Your task to perform on an android device: install app "NewsBreak: Local News & Alerts" Image 0: 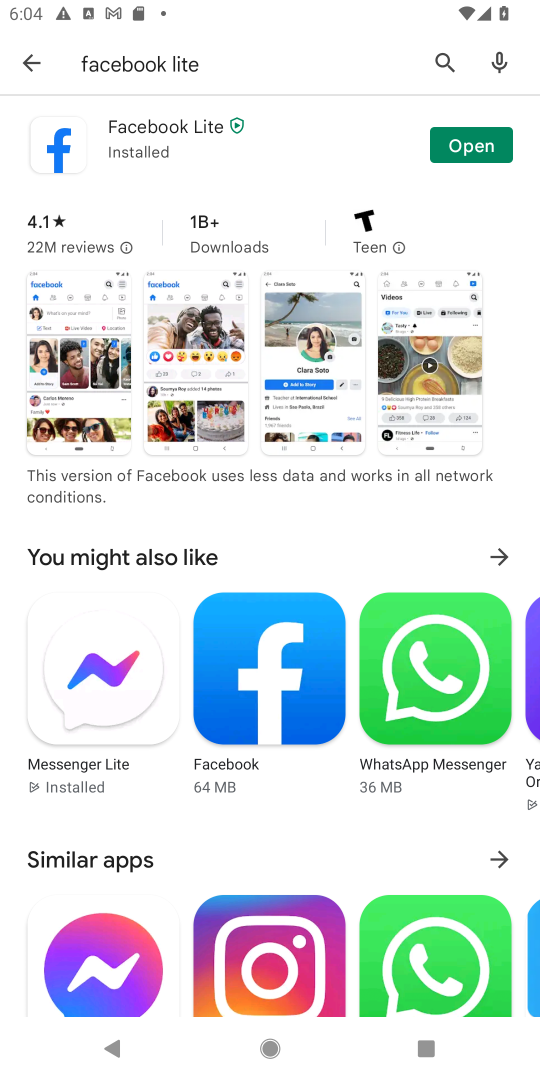
Step 0: press home button
Your task to perform on an android device: install app "NewsBreak: Local News & Alerts" Image 1: 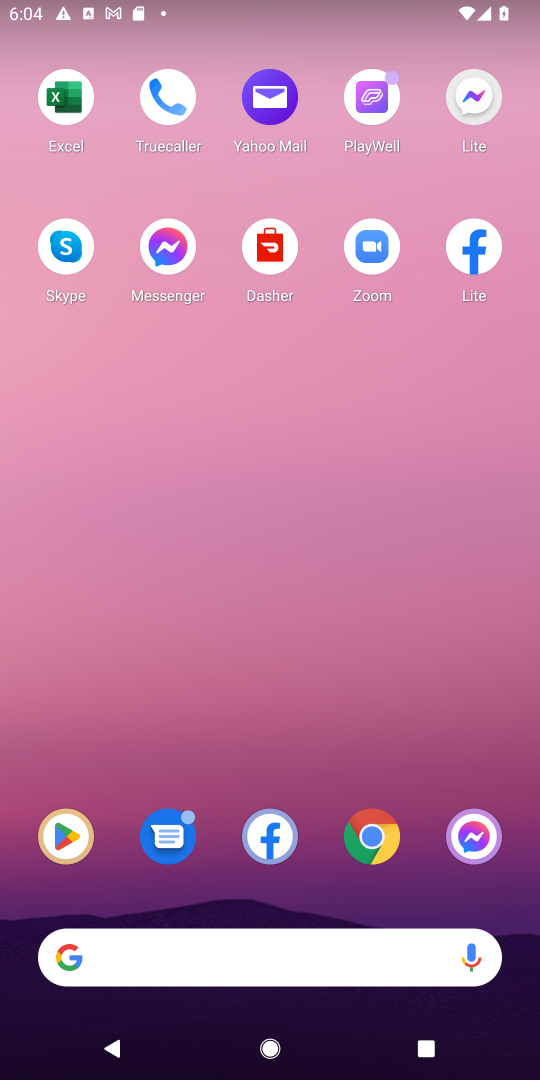
Step 1: click (50, 845)
Your task to perform on an android device: install app "NewsBreak: Local News & Alerts" Image 2: 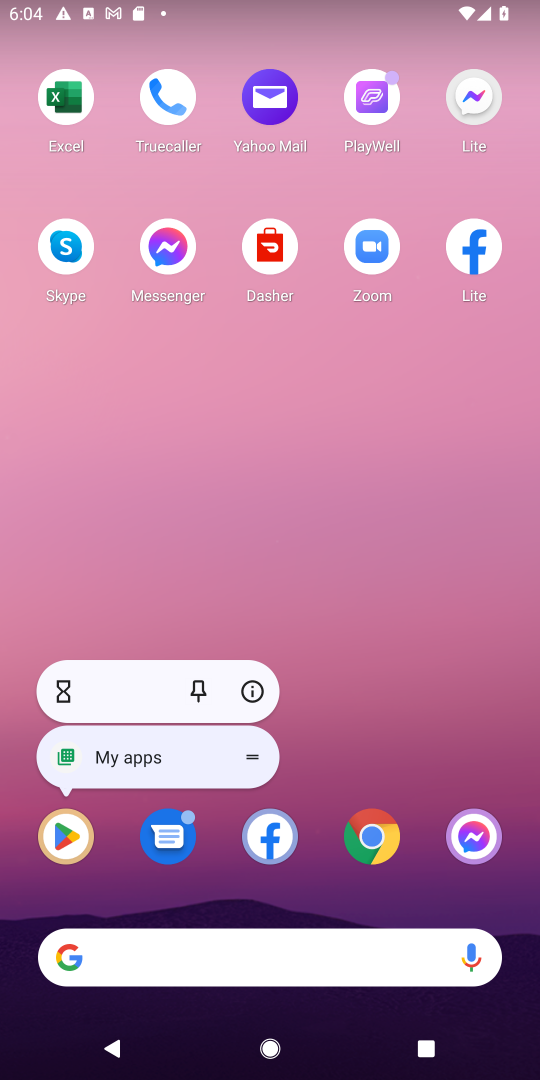
Step 2: click (56, 842)
Your task to perform on an android device: install app "NewsBreak: Local News & Alerts" Image 3: 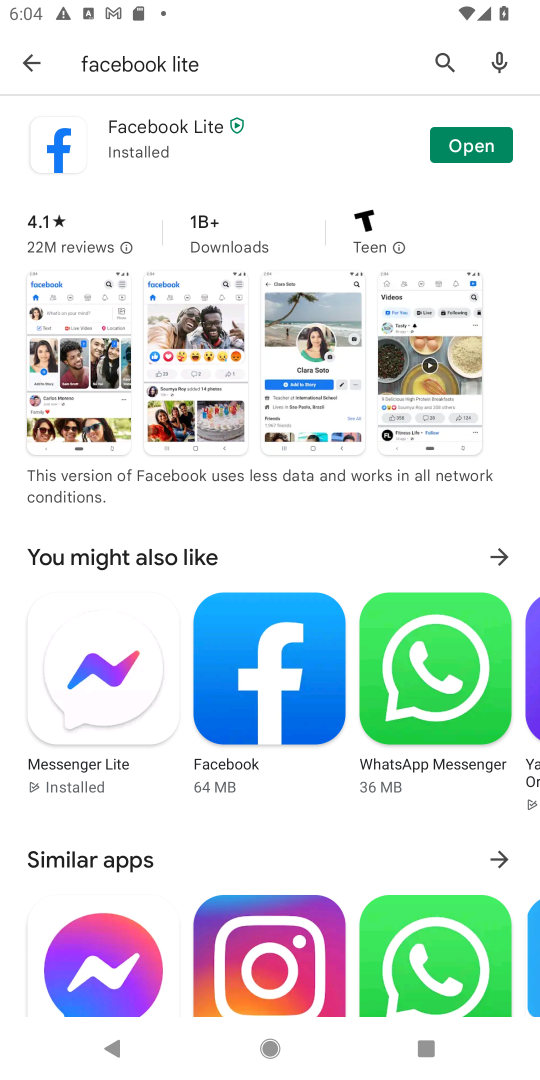
Step 3: click (442, 59)
Your task to perform on an android device: install app "NewsBreak: Local News & Alerts" Image 4: 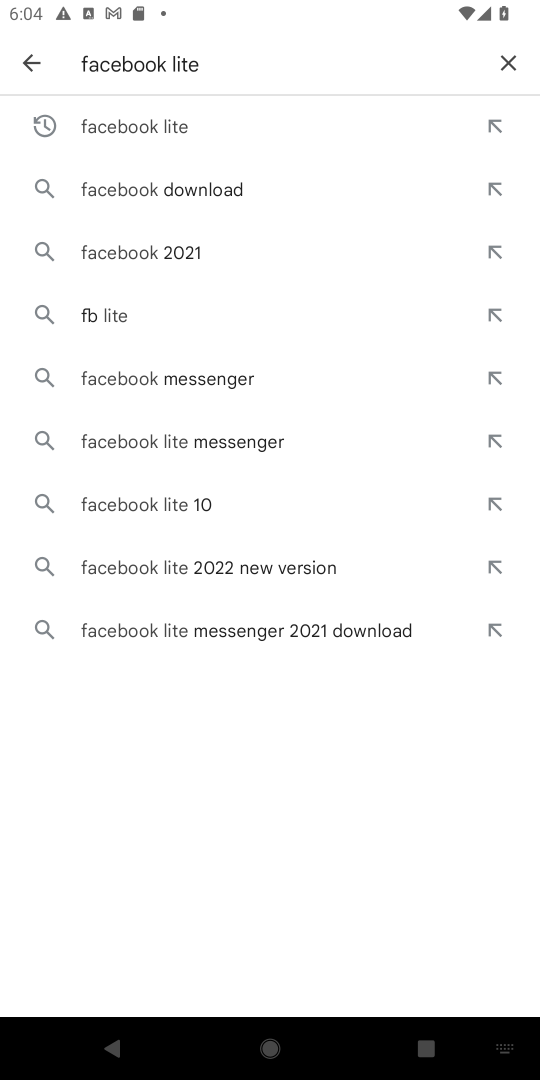
Step 4: click (504, 57)
Your task to perform on an android device: install app "NewsBreak: Local News & Alerts" Image 5: 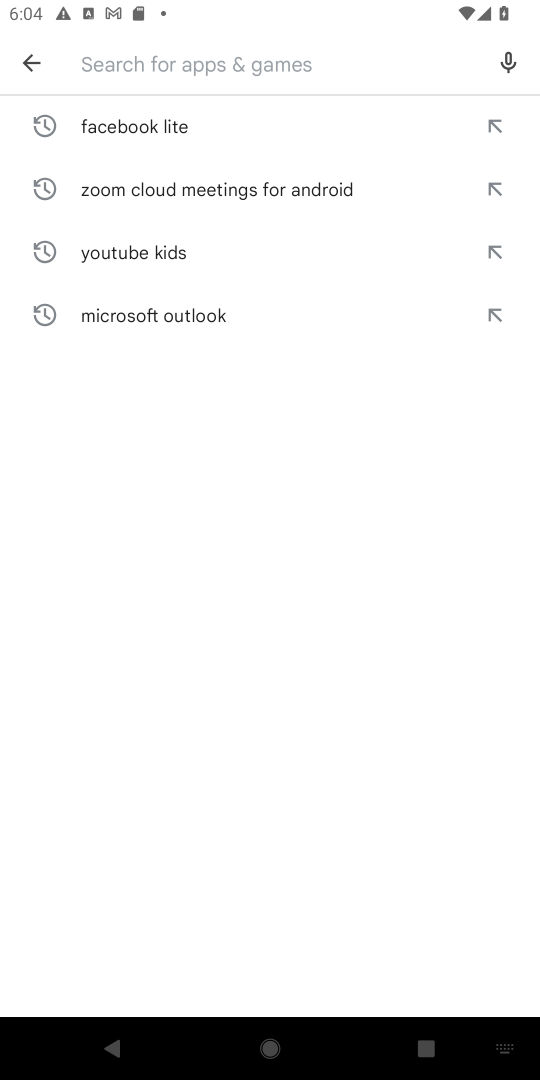
Step 5: click (525, 1074)
Your task to perform on an android device: install app "NewsBreak: Local News & Alerts" Image 6: 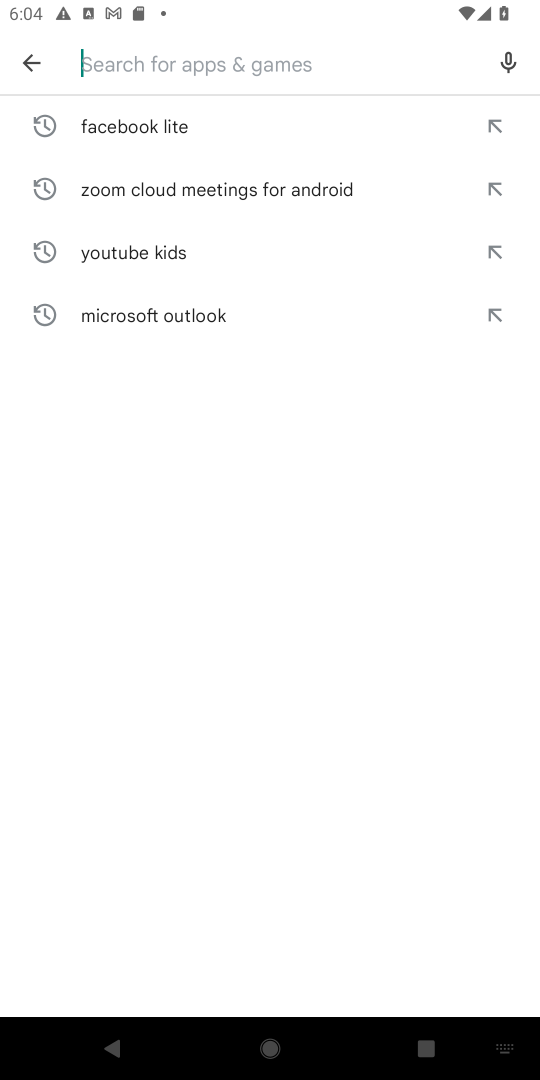
Step 6: type "NewsBreak: Local News & Alerts"
Your task to perform on an android device: install app "NewsBreak: Local News & Alerts" Image 7: 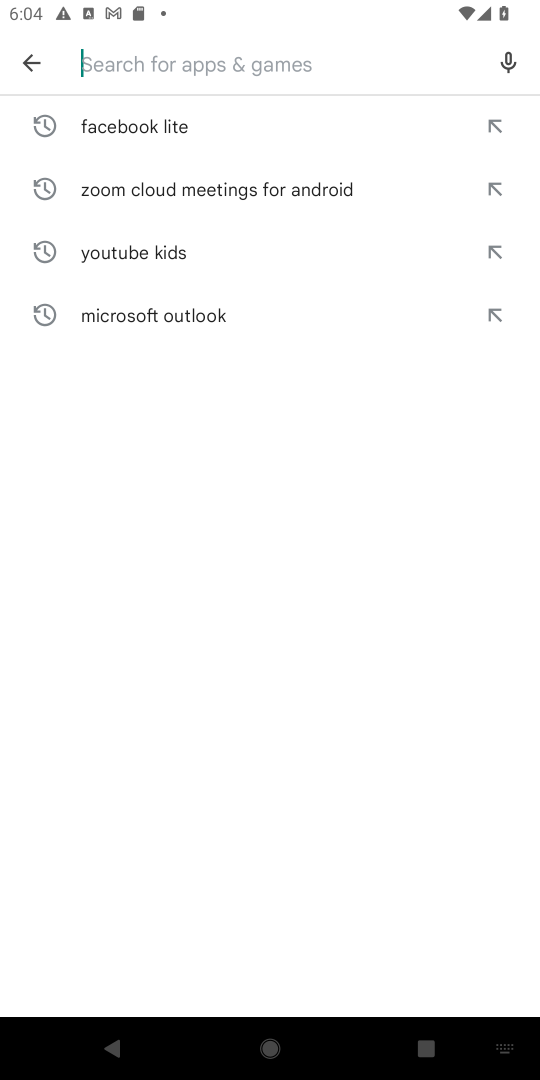
Step 7: click (528, 255)
Your task to perform on an android device: install app "NewsBreak: Local News & Alerts" Image 8: 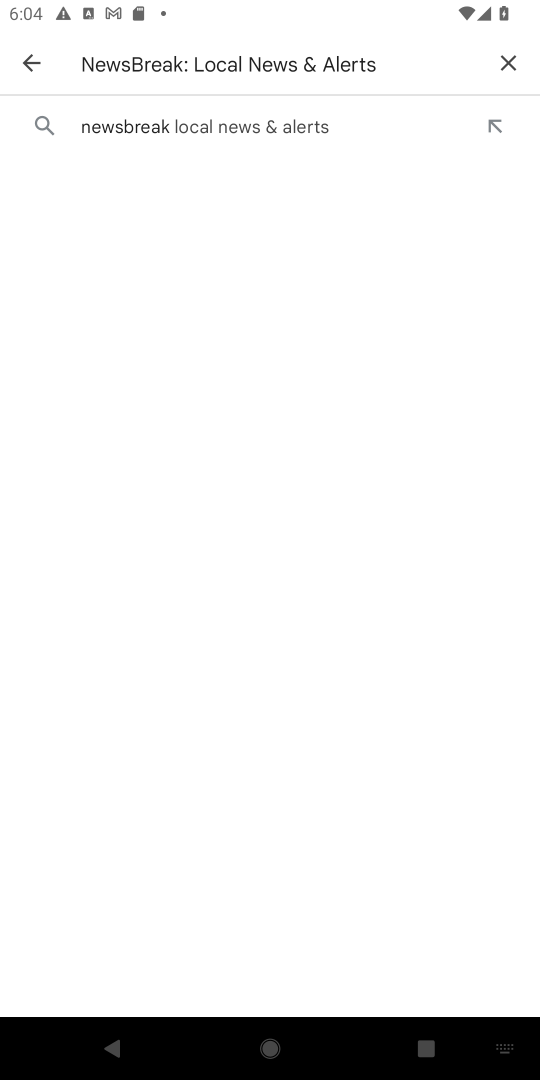
Step 8: click (240, 125)
Your task to perform on an android device: install app "NewsBreak: Local News & Alerts" Image 9: 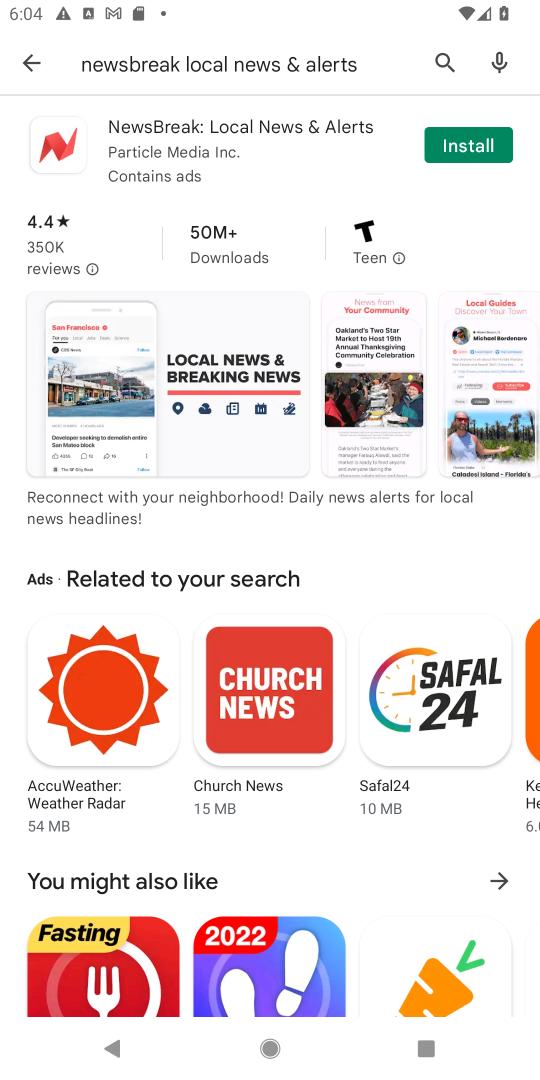
Step 9: click (460, 149)
Your task to perform on an android device: install app "NewsBreak: Local News & Alerts" Image 10: 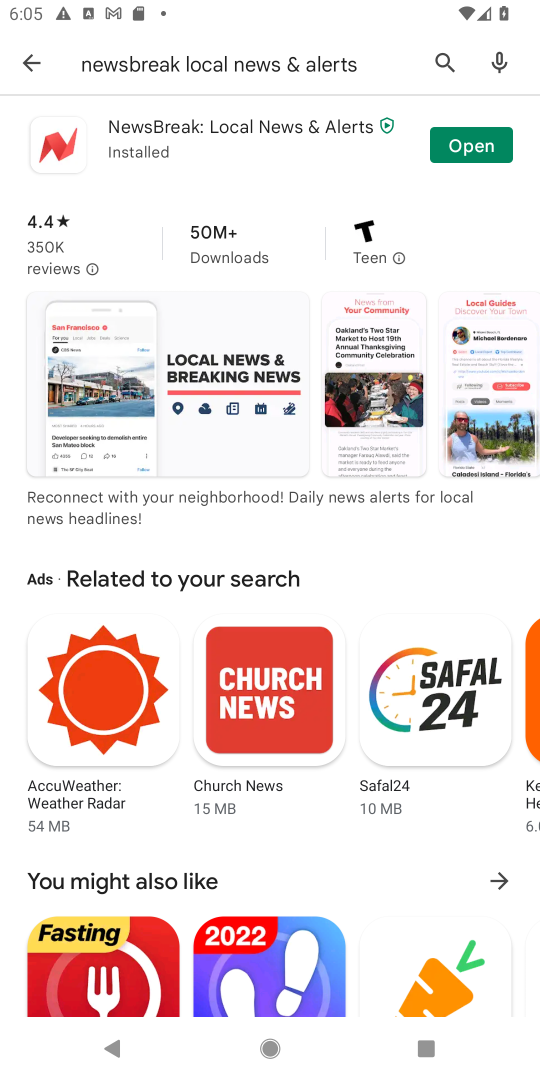
Step 10: task complete